Your task to perform on an android device: Open Android settings Image 0: 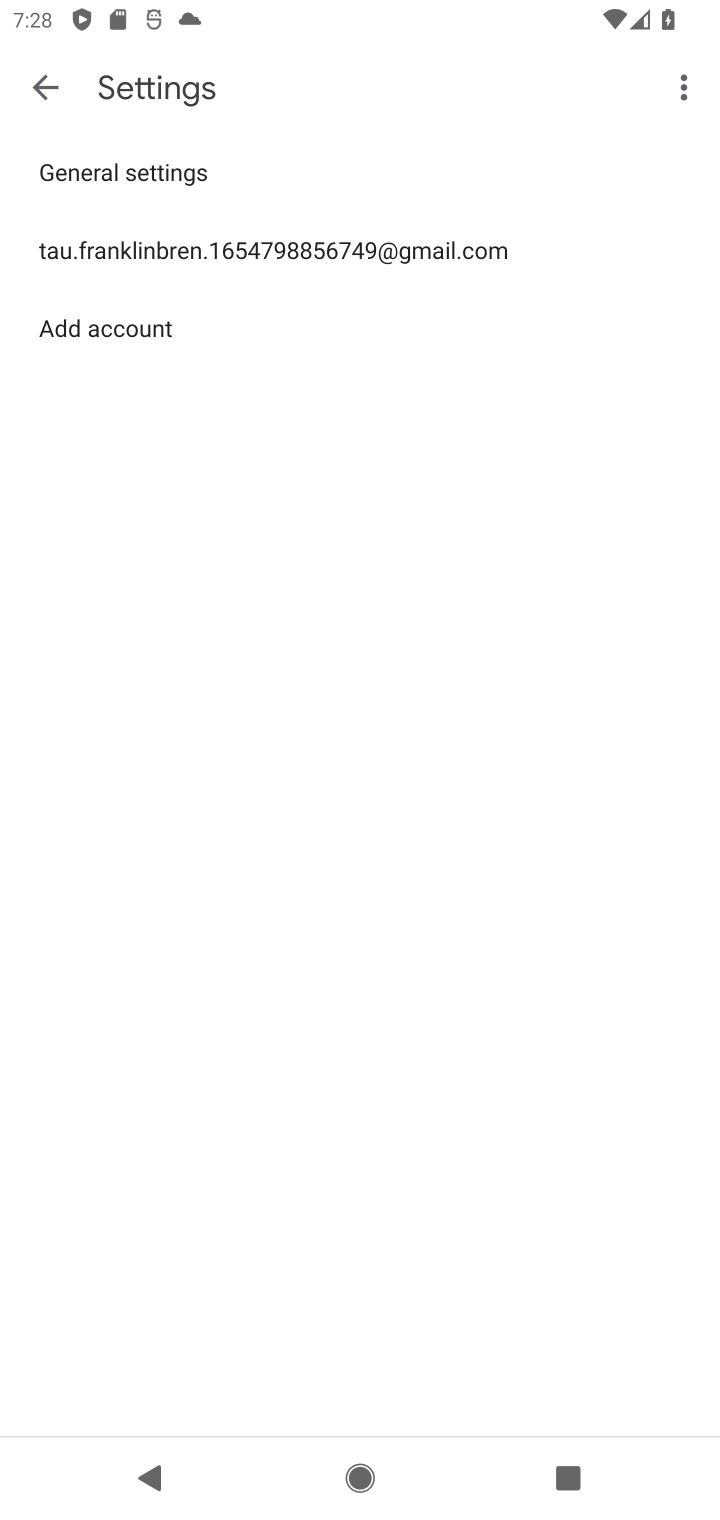
Step 0: press home button
Your task to perform on an android device: Open Android settings Image 1: 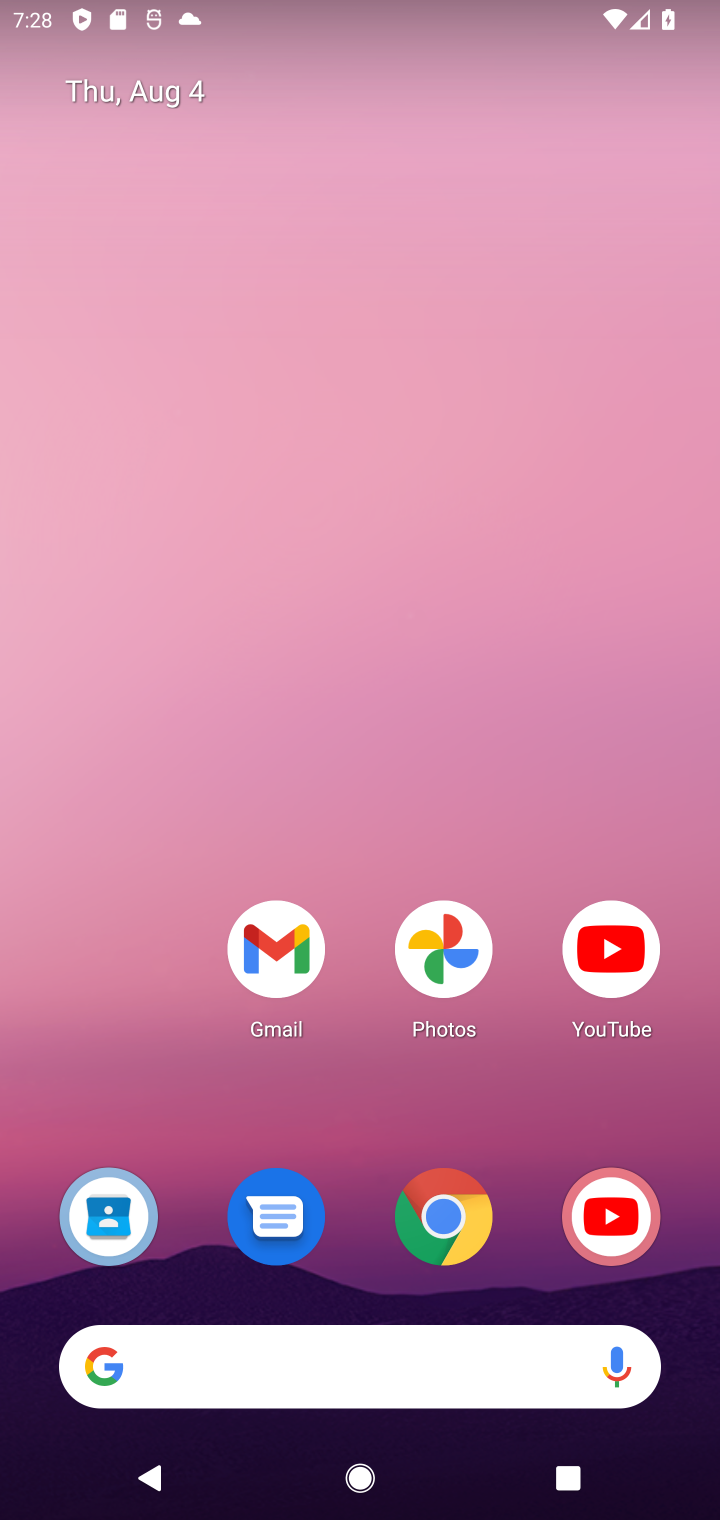
Step 1: drag from (357, 690) to (309, 160)
Your task to perform on an android device: Open Android settings Image 2: 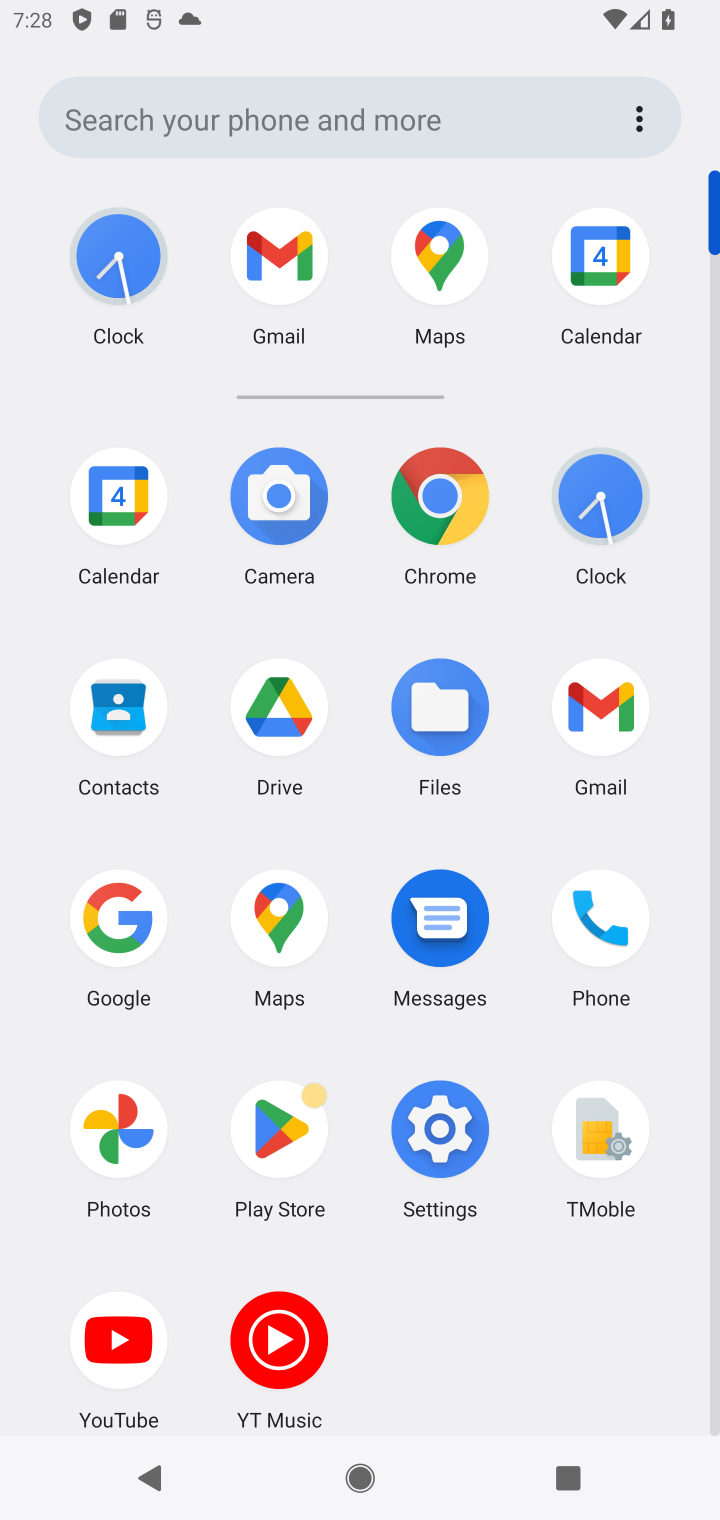
Step 2: click (465, 1125)
Your task to perform on an android device: Open Android settings Image 3: 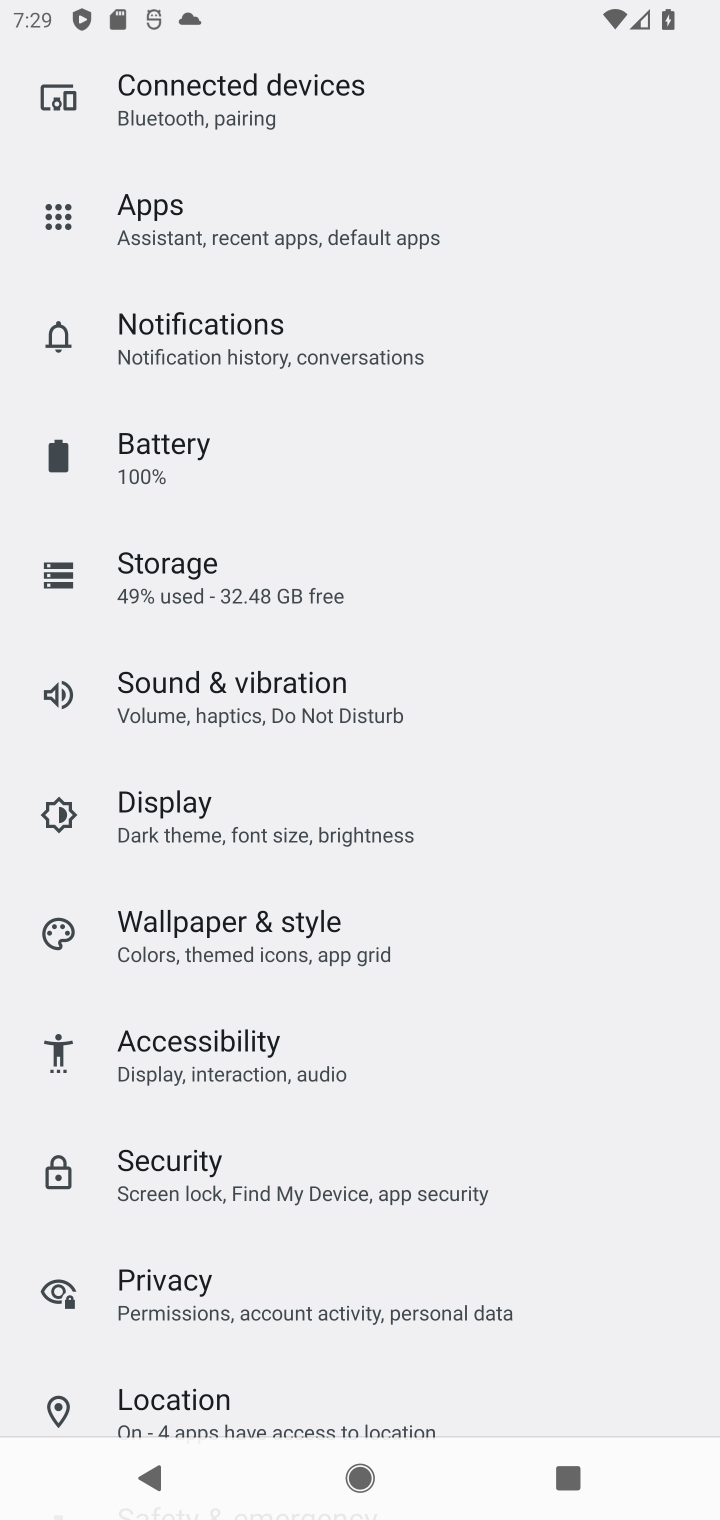
Step 3: task complete